Your task to perform on an android device: add a contact Image 0: 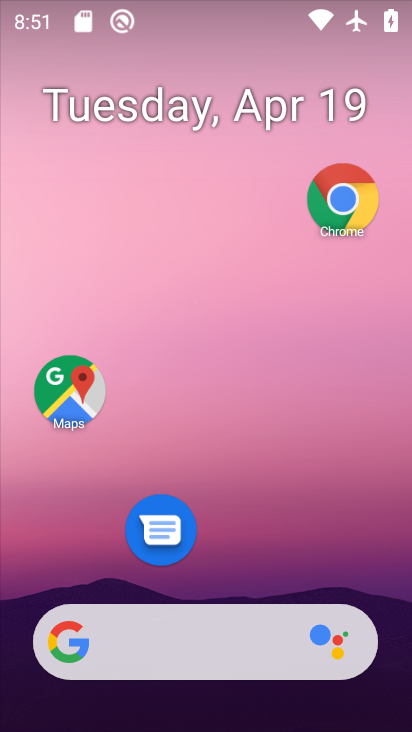
Step 0: drag from (212, 499) to (247, 126)
Your task to perform on an android device: add a contact Image 1: 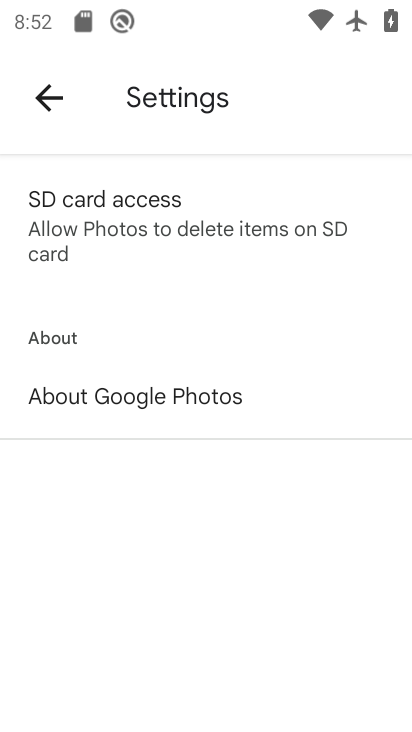
Step 1: click (40, 97)
Your task to perform on an android device: add a contact Image 2: 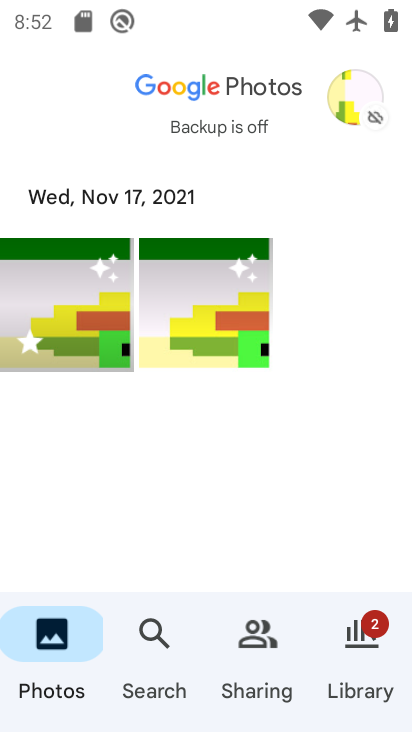
Step 2: drag from (188, 420) to (239, 193)
Your task to perform on an android device: add a contact Image 3: 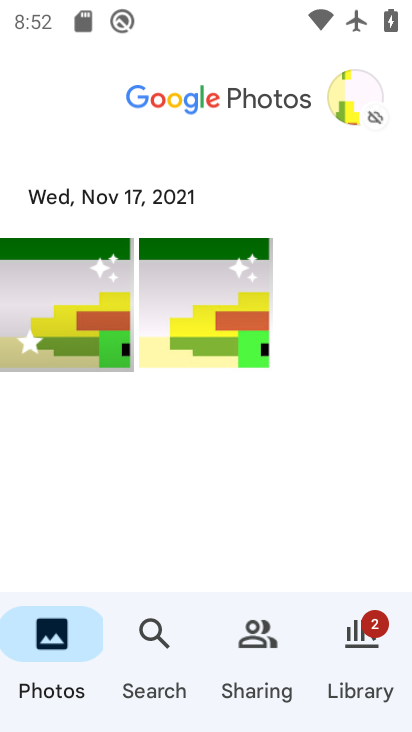
Step 3: press home button
Your task to perform on an android device: add a contact Image 4: 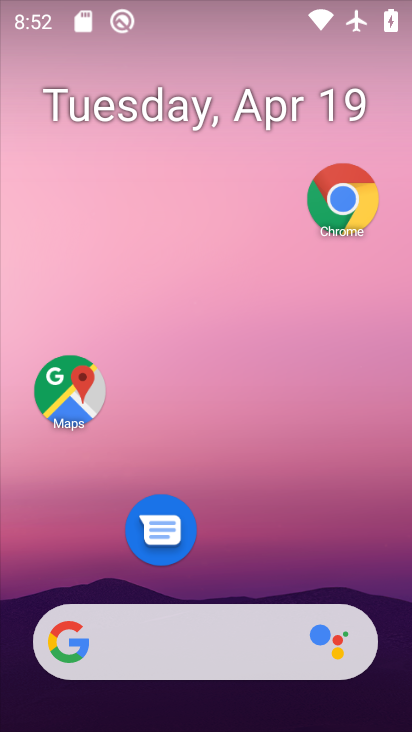
Step 4: drag from (211, 581) to (340, 45)
Your task to perform on an android device: add a contact Image 5: 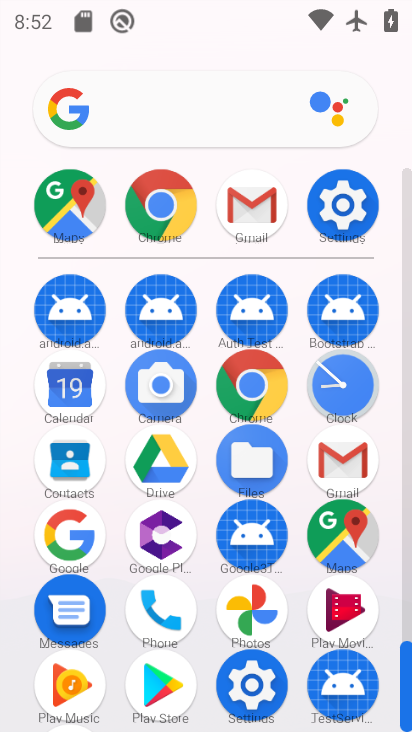
Step 5: drag from (205, 713) to (216, 226)
Your task to perform on an android device: add a contact Image 6: 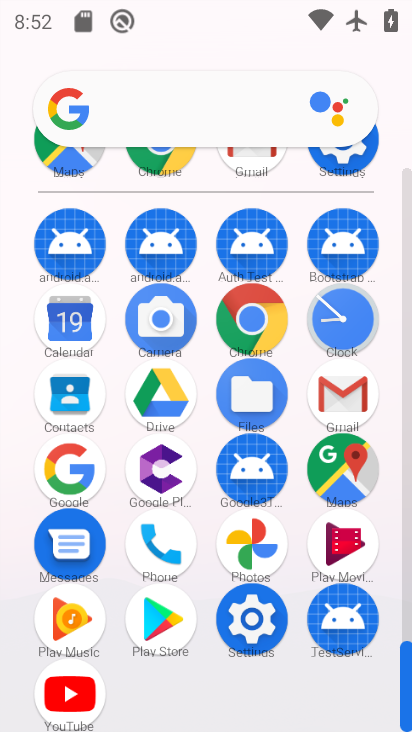
Step 6: click (54, 398)
Your task to perform on an android device: add a contact Image 7: 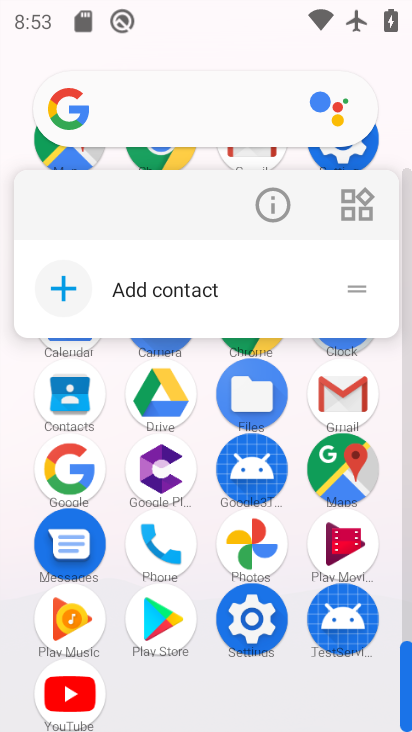
Step 7: click (260, 211)
Your task to perform on an android device: add a contact Image 8: 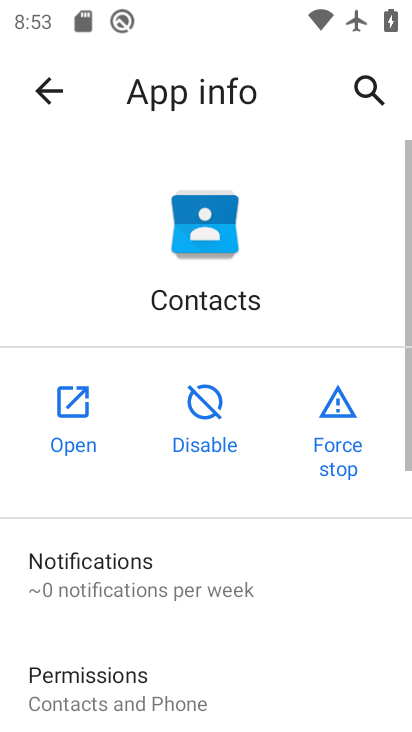
Step 8: click (63, 406)
Your task to perform on an android device: add a contact Image 9: 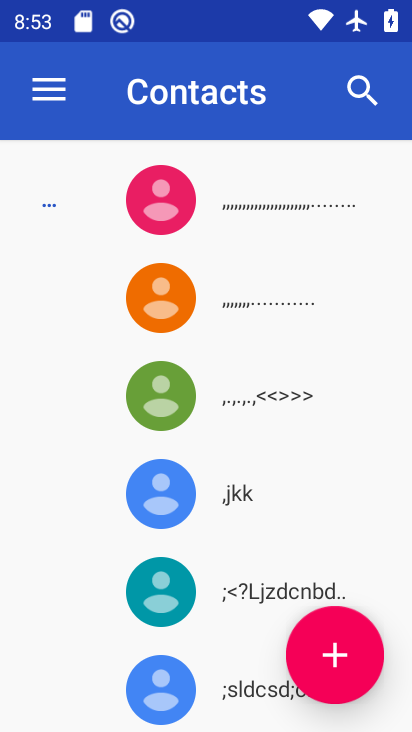
Step 9: drag from (192, 539) to (247, 197)
Your task to perform on an android device: add a contact Image 10: 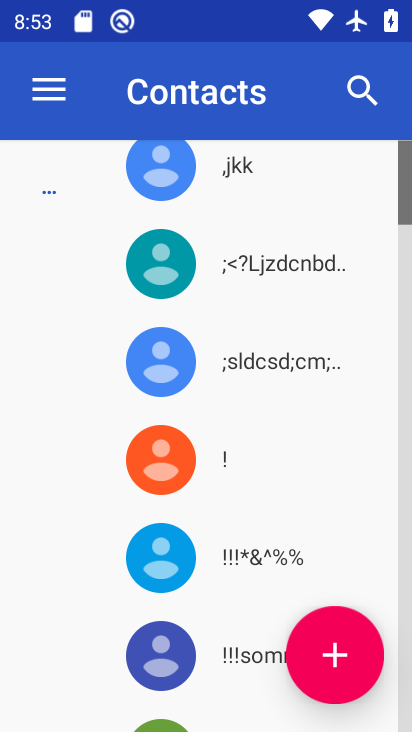
Step 10: drag from (237, 563) to (275, 217)
Your task to perform on an android device: add a contact Image 11: 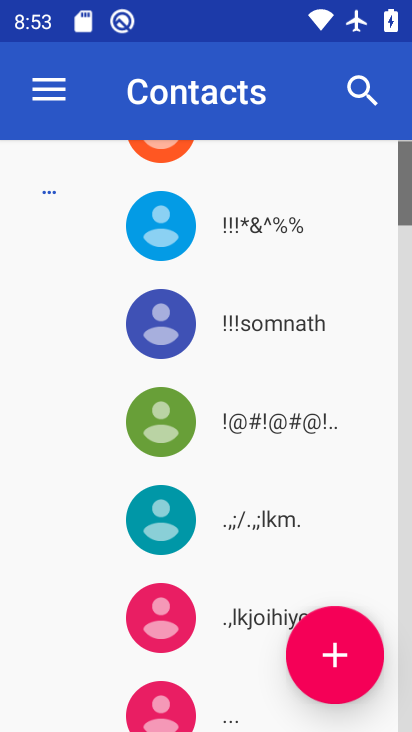
Step 11: drag from (228, 710) to (302, 211)
Your task to perform on an android device: add a contact Image 12: 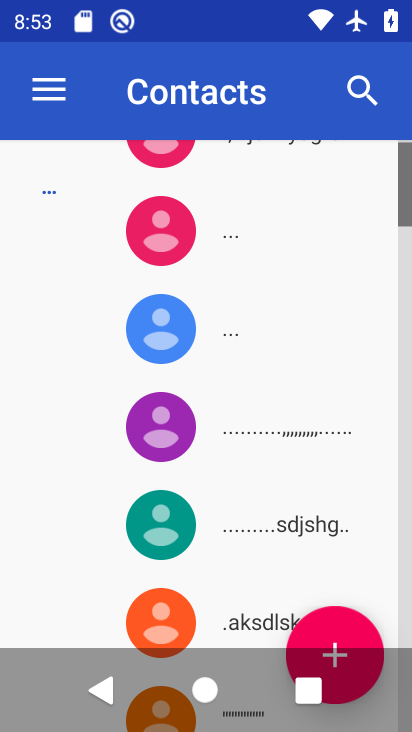
Step 12: drag from (296, 234) to (251, 730)
Your task to perform on an android device: add a contact Image 13: 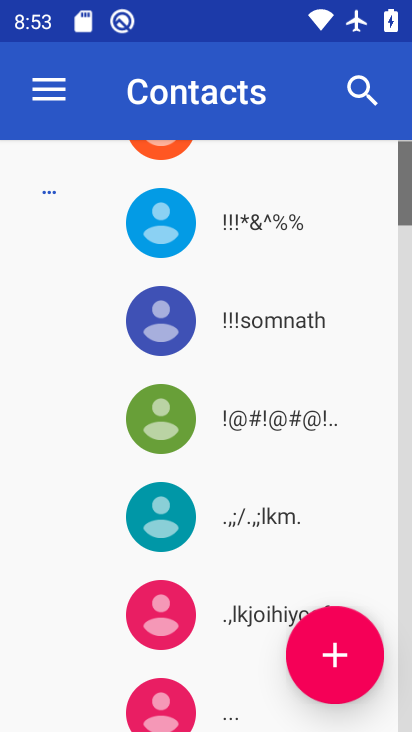
Step 13: drag from (170, 327) to (232, 730)
Your task to perform on an android device: add a contact Image 14: 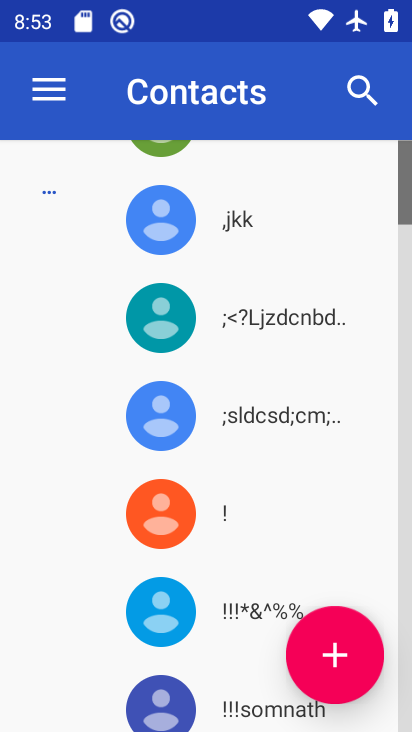
Step 14: click (346, 653)
Your task to perform on an android device: add a contact Image 15: 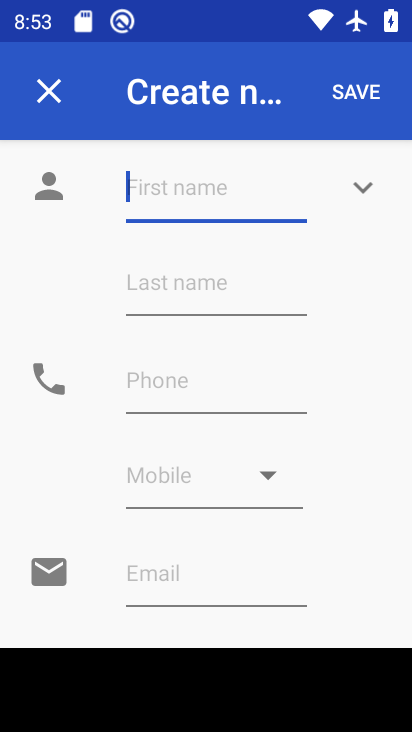
Step 15: type "hgj"
Your task to perform on an android device: add a contact Image 16: 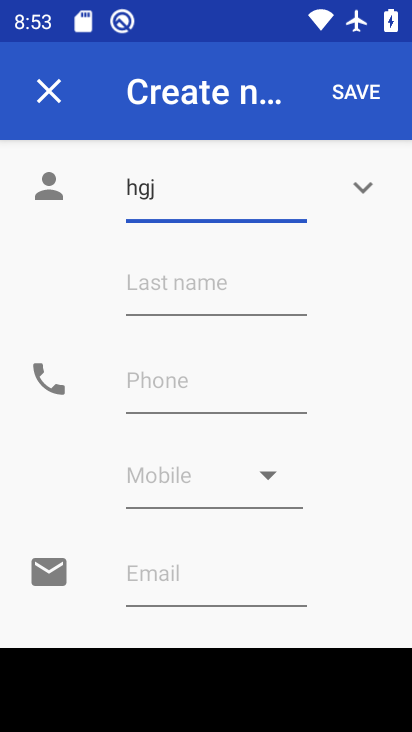
Step 16: click (349, 89)
Your task to perform on an android device: add a contact Image 17: 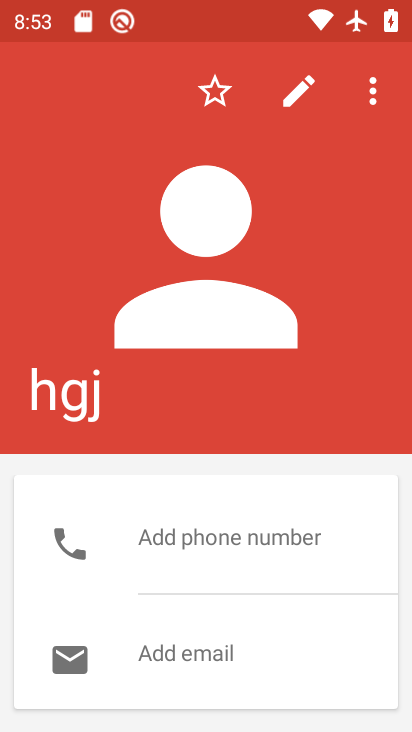
Step 17: task complete